Your task to perform on an android device: change the clock style Image 0: 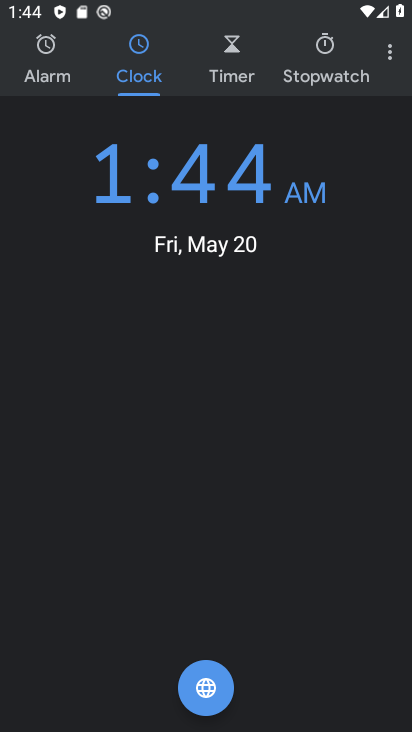
Step 0: click (381, 49)
Your task to perform on an android device: change the clock style Image 1: 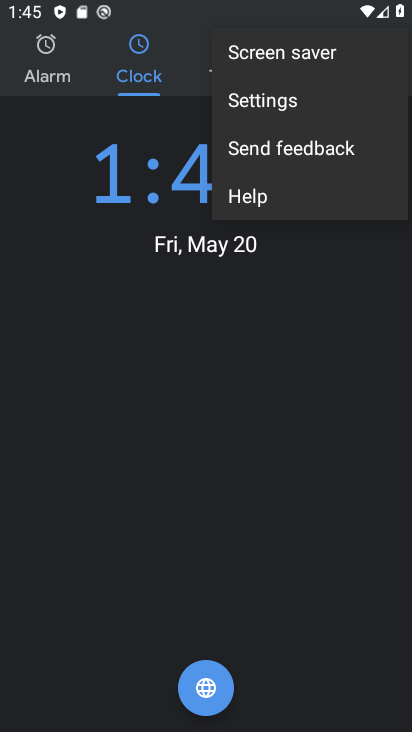
Step 1: click (343, 89)
Your task to perform on an android device: change the clock style Image 2: 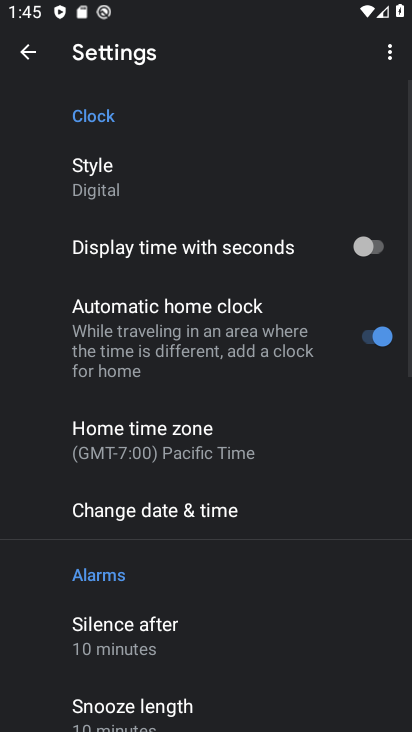
Step 2: click (255, 190)
Your task to perform on an android device: change the clock style Image 3: 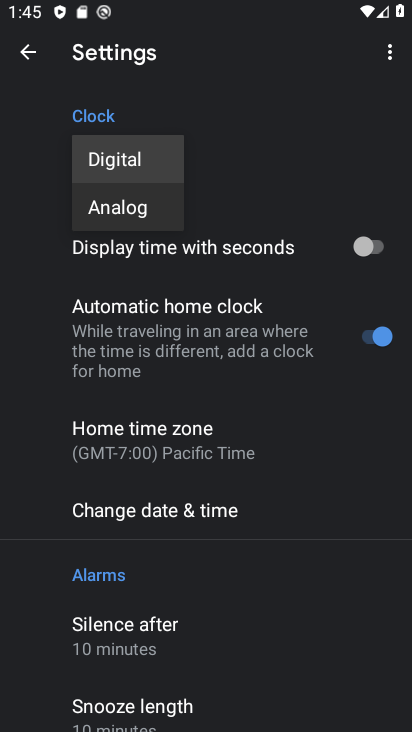
Step 3: click (157, 214)
Your task to perform on an android device: change the clock style Image 4: 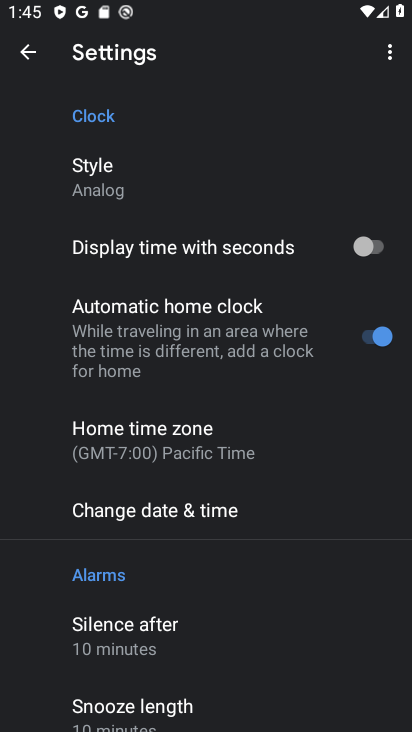
Step 4: task complete